Your task to perform on an android device: Clear the cart on amazon.com. Image 0: 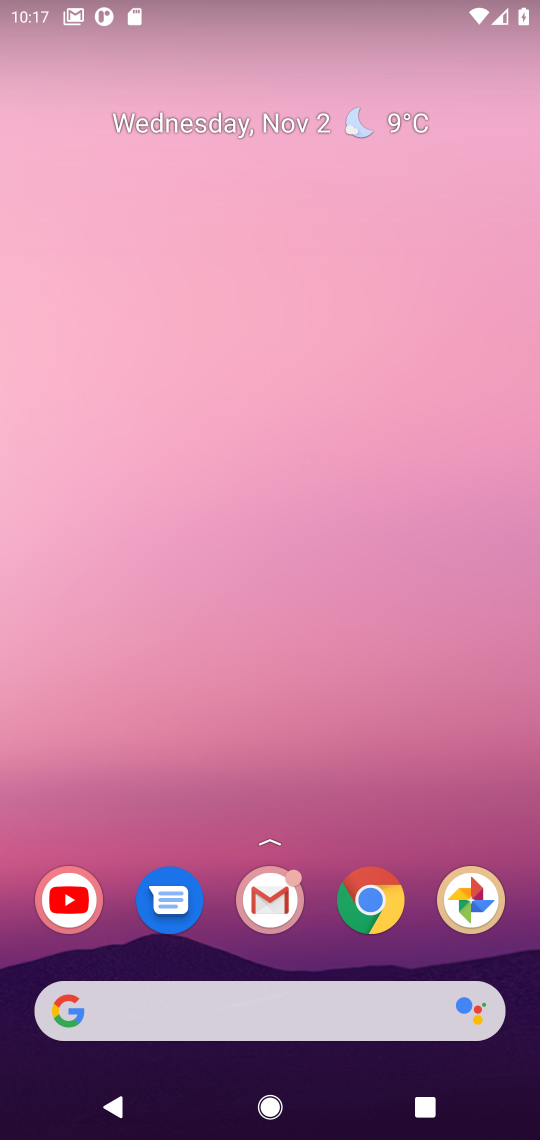
Step 0: click (363, 862)
Your task to perform on an android device: Clear the cart on amazon.com. Image 1: 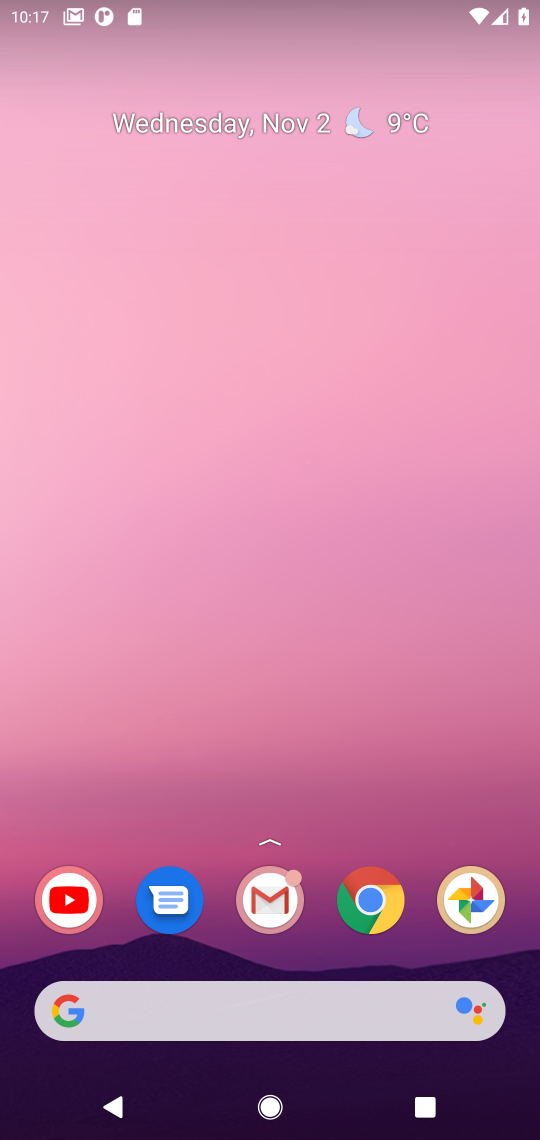
Step 1: click (377, 891)
Your task to perform on an android device: Clear the cart on amazon.com. Image 2: 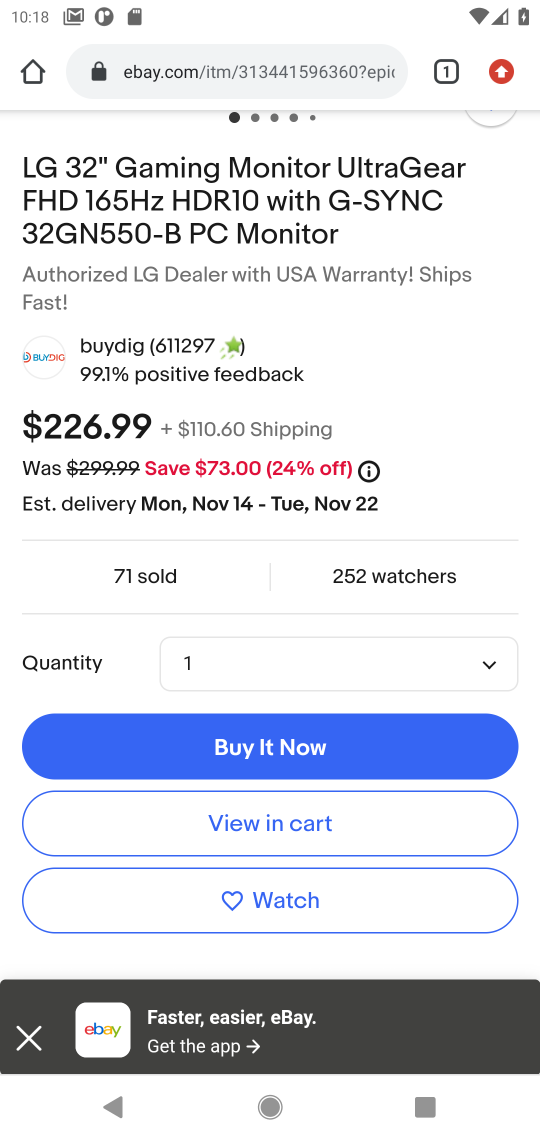
Step 2: click (196, 68)
Your task to perform on an android device: Clear the cart on amazon.com. Image 3: 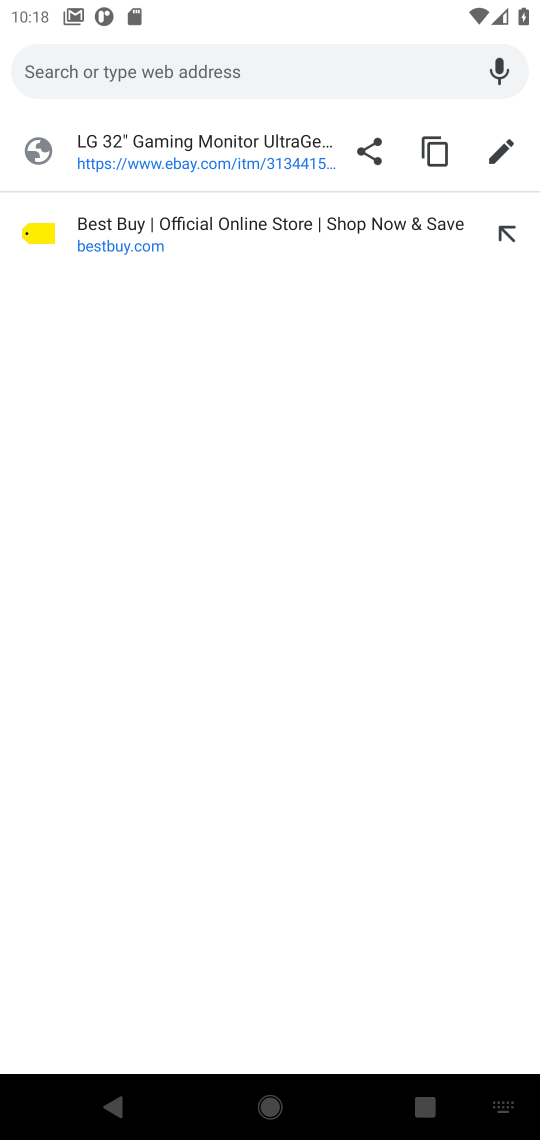
Step 3: type "amazon"
Your task to perform on an android device: Clear the cart on amazon.com. Image 4: 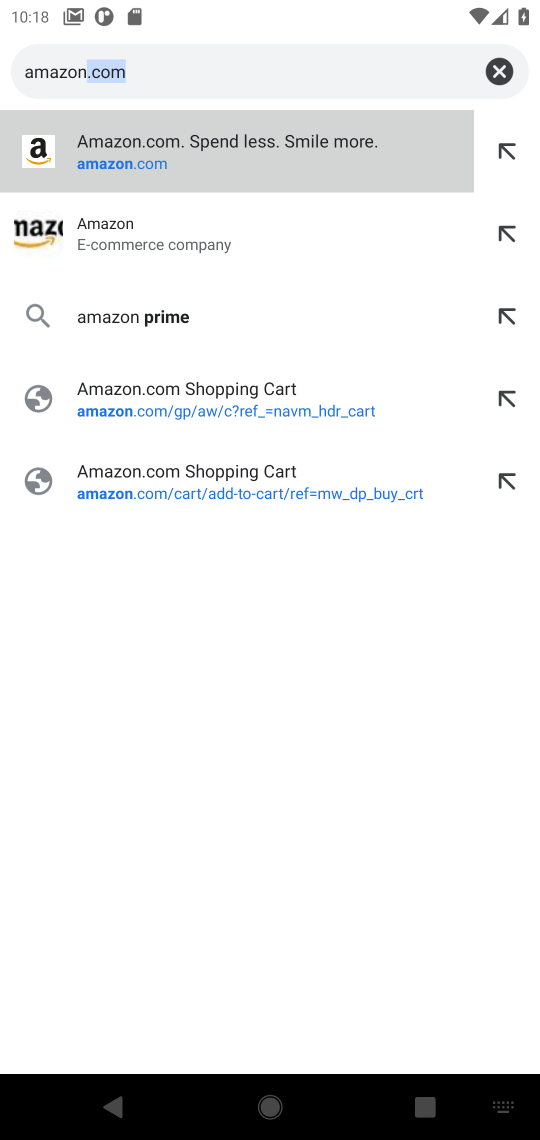
Step 4: click (195, 217)
Your task to perform on an android device: Clear the cart on amazon.com. Image 5: 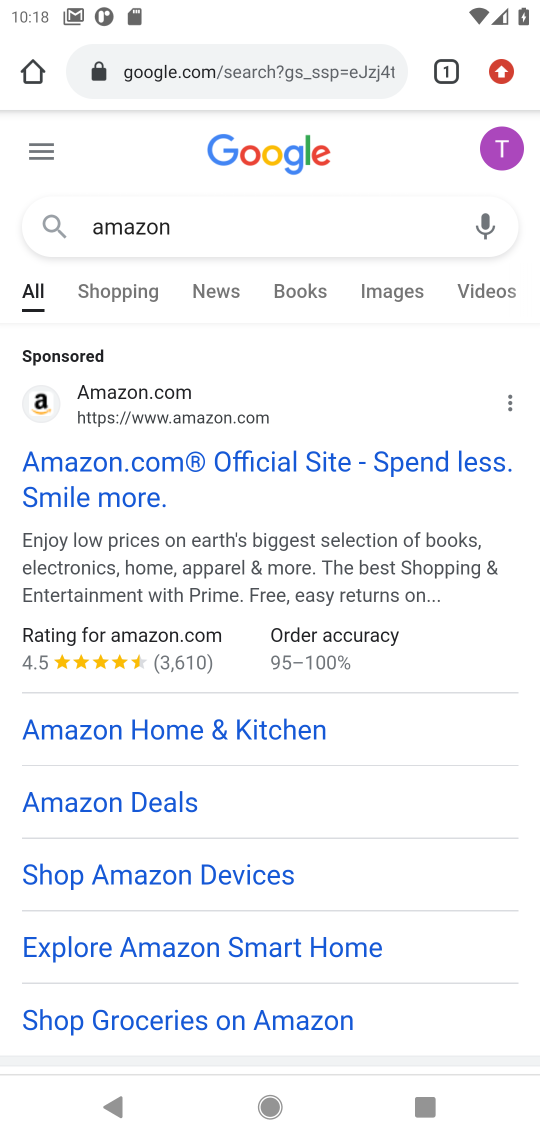
Step 5: click (165, 452)
Your task to perform on an android device: Clear the cart on amazon.com. Image 6: 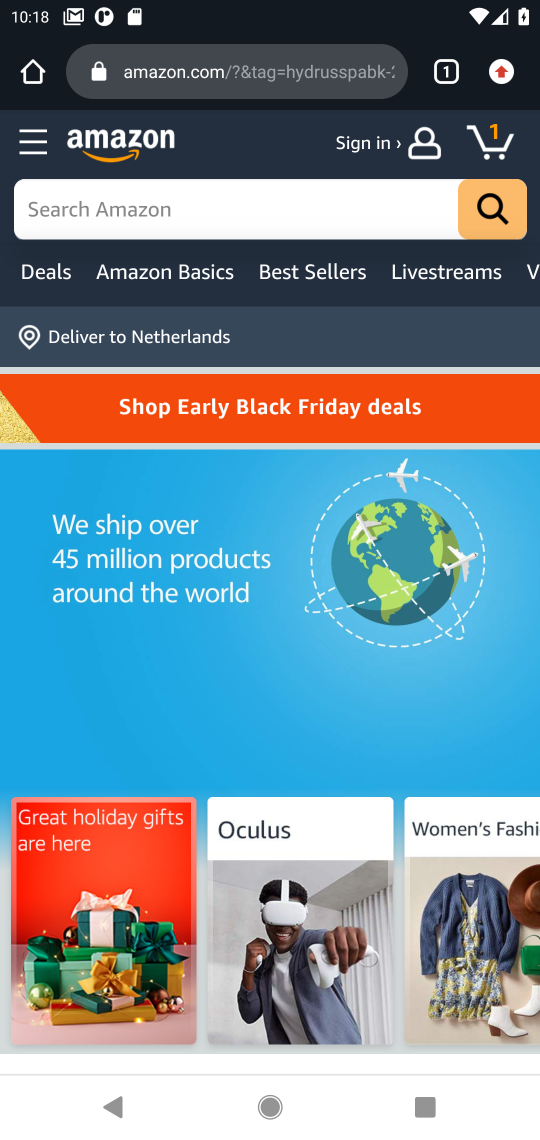
Step 6: click (498, 128)
Your task to perform on an android device: Clear the cart on amazon.com. Image 7: 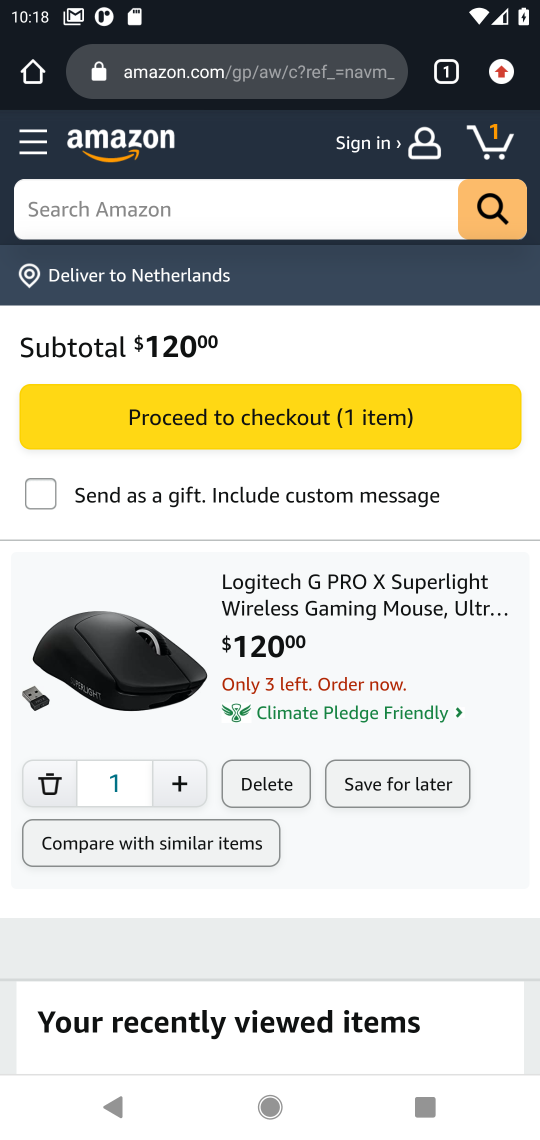
Step 7: click (243, 795)
Your task to perform on an android device: Clear the cart on amazon.com. Image 8: 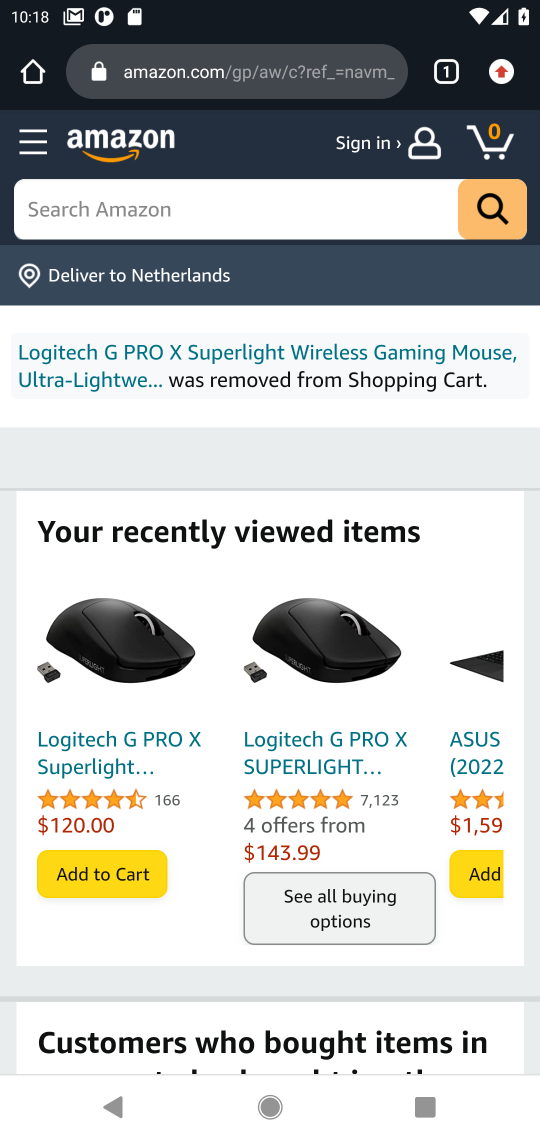
Step 8: task complete